Your task to perform on an android device: Open Android settings Image 0: 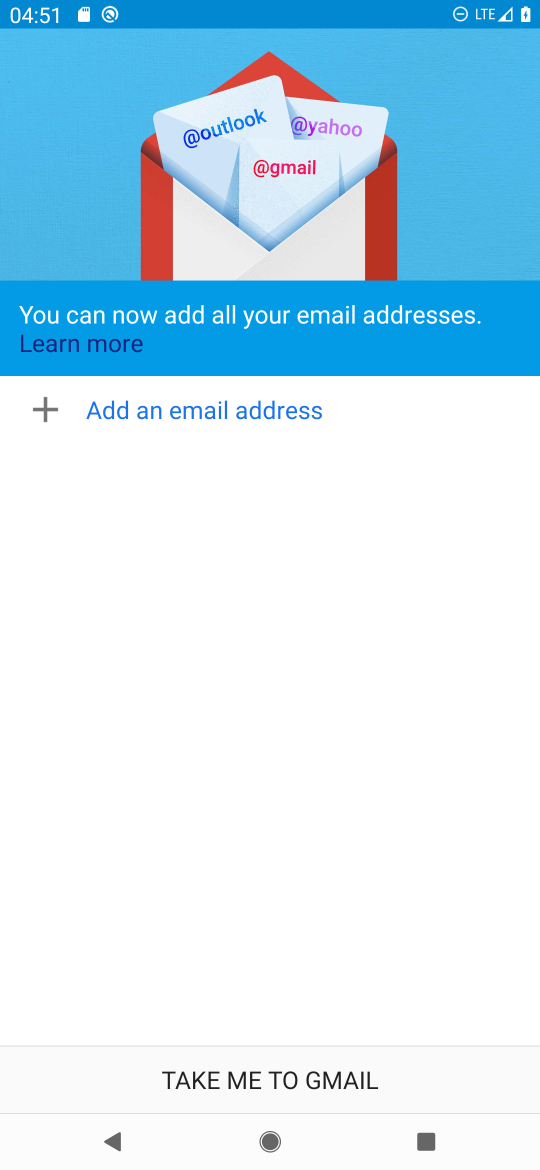
Step 0: press home button
Your task to perform on an android device: Open Android settings Image 1: 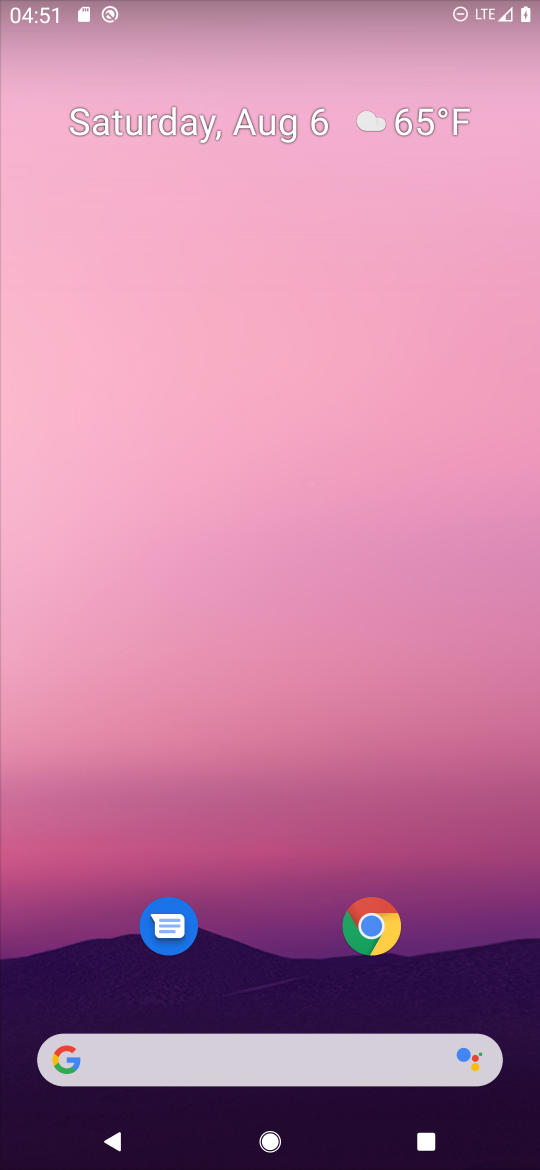
Step 1: drag from (267, 955) to (210, 288)
Your task to perform on an android device: Open Android settings Image 2: 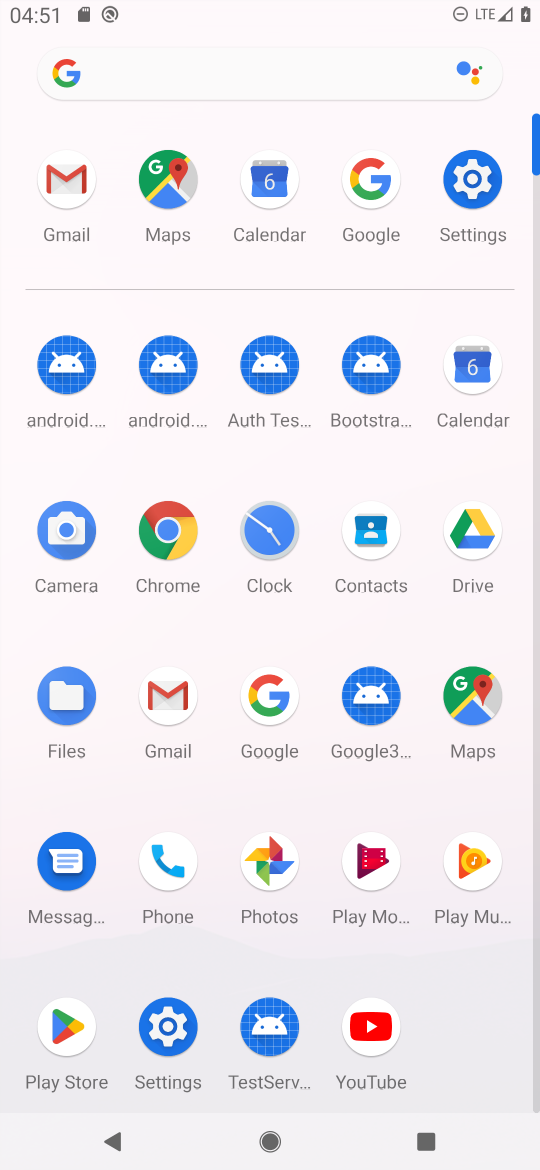
Step 2: click (485, 216)
Your task to perform on an android device: Open Android settings Image 3: 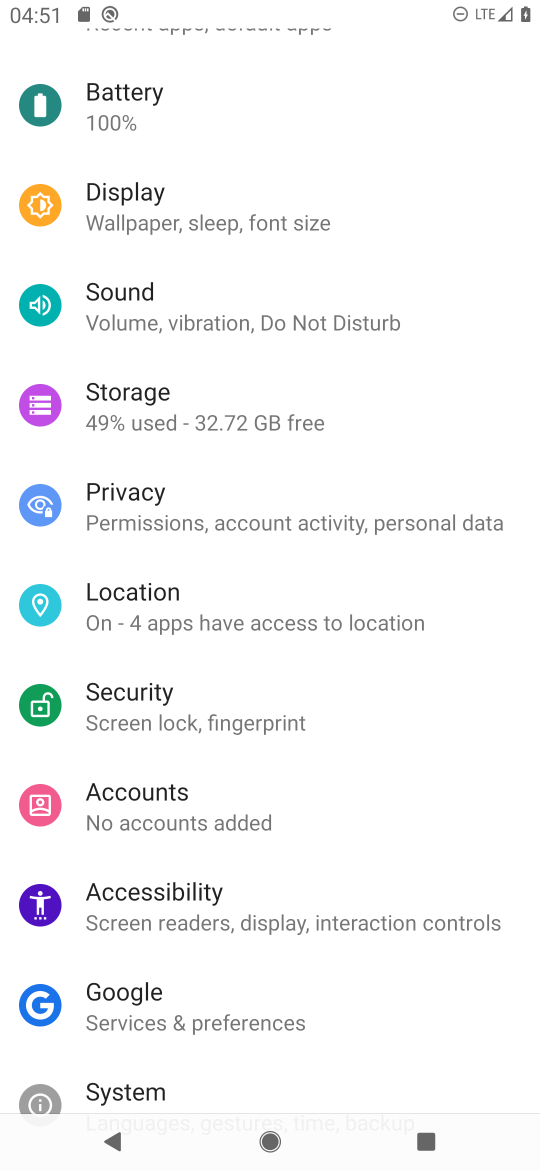
Step 3: drag from (319, 958) to (304, 345)
Your task to perform on an android device: Open Android settings Image 4: 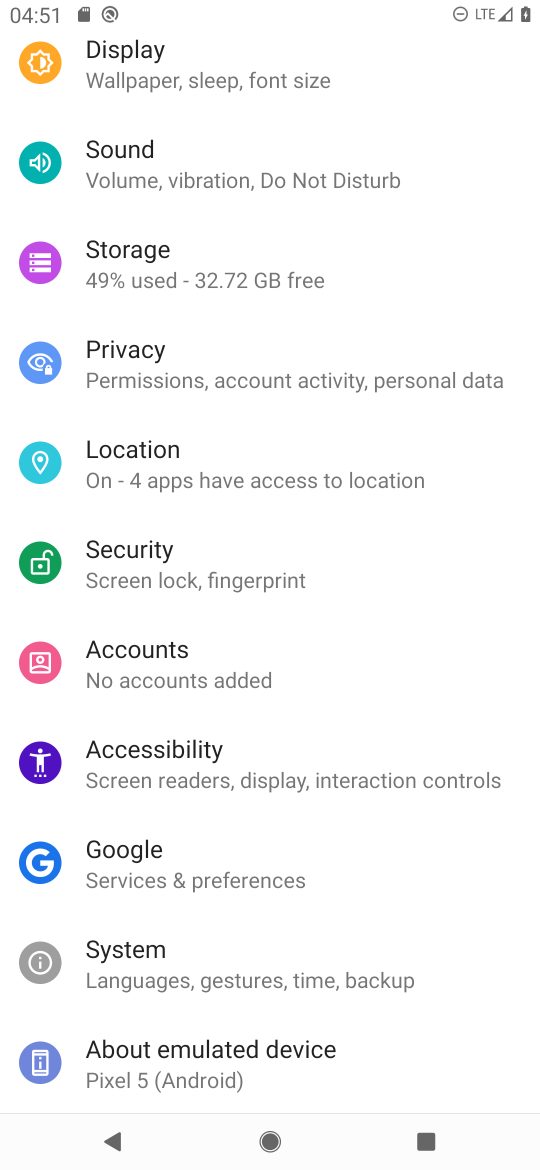
Step 4: click (217, 1039)
Your task to perform on an android device: Open Android settings Image 5: 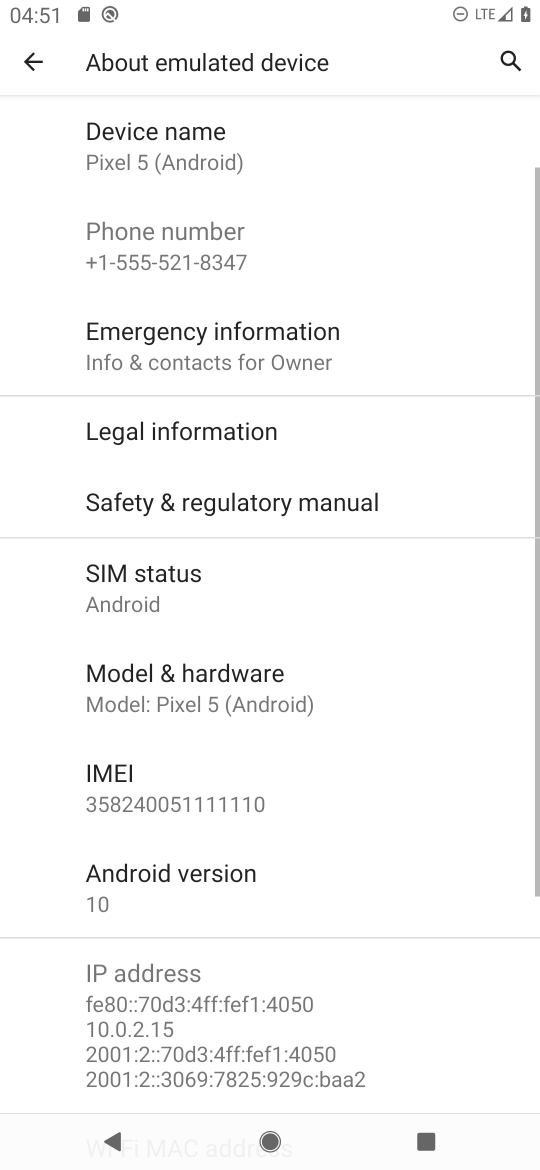
Step 5: task complete